Your task to perform on an android device: Go to settings Image 0: 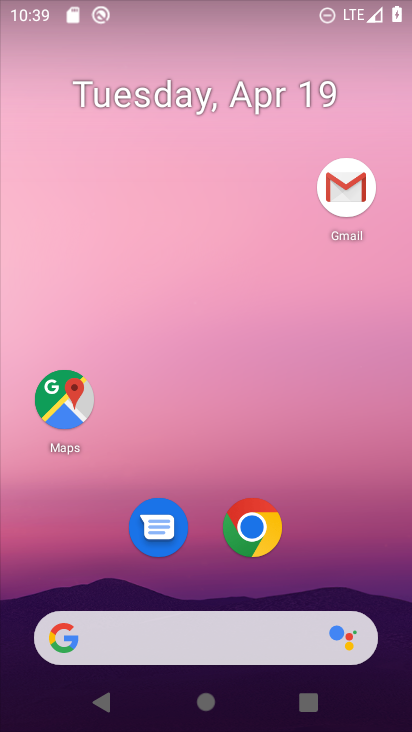
Step 0: drag from (362, 476) to (386, 63)
Your task to perform on an android device: Go to settings Image 1: 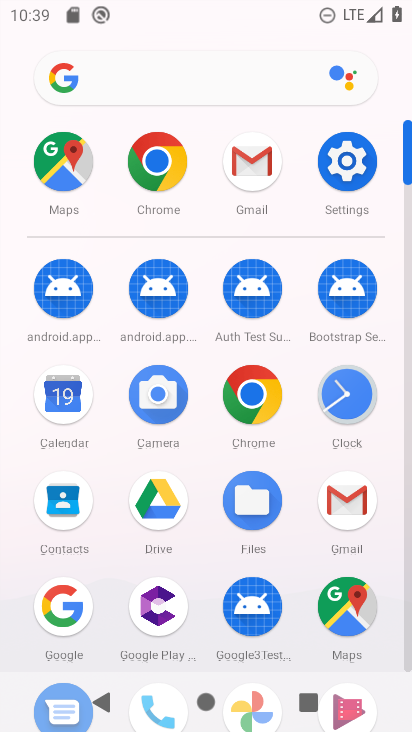
Step 1: click (352, 176)
Your task to perform on an android device: Go to settings Image 2: 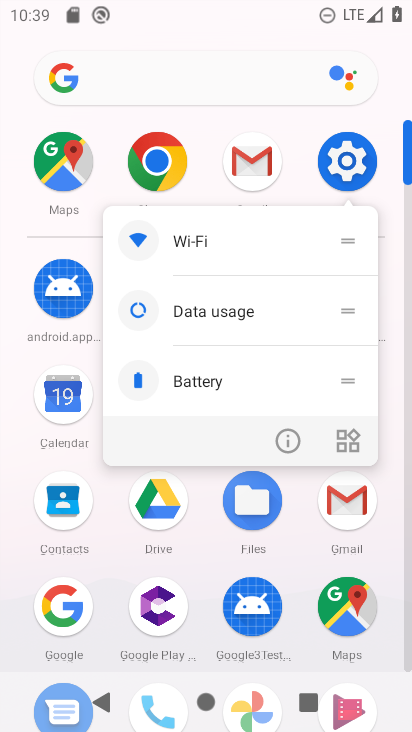
Step 2: click (352, 176)
Your task to perform on an android device: Go to settings Image 3: 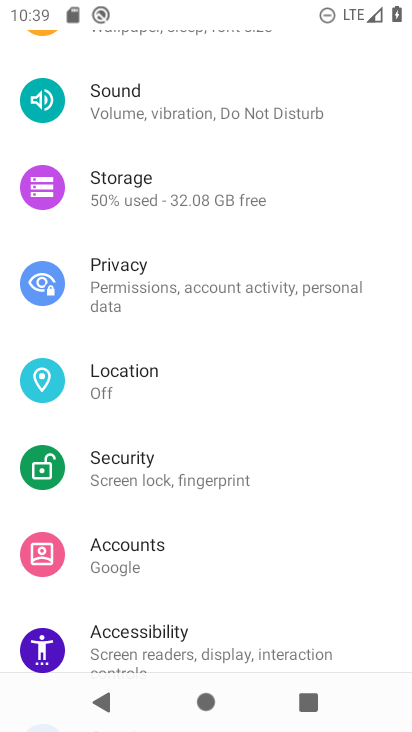
Step 3: task complete